Your task to perform on an android device: turn off location Image 0: 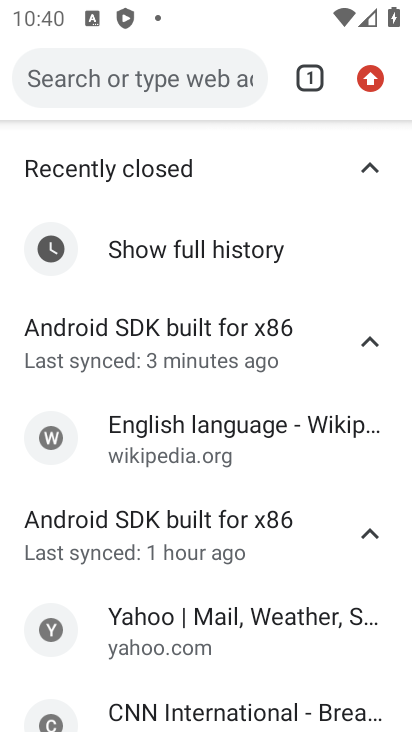
Step 0: press home button
Your task to perform on an android device: turn off location Image 1: 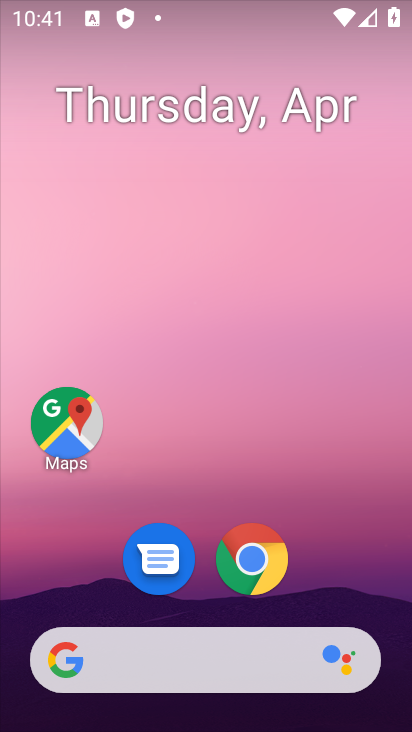
Step 1: drag from (223, 590) to (271, 40)
Your task to perform on an android device: turn off location Image 2: 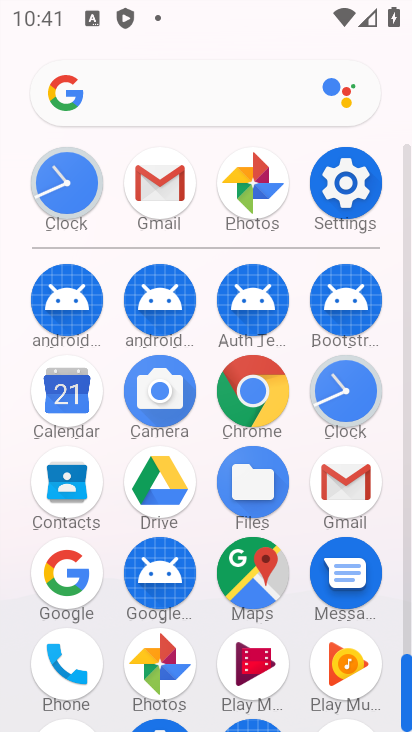
Step 2: click (355, 211)
Your task to perform on an android device: turn off location Image 3: 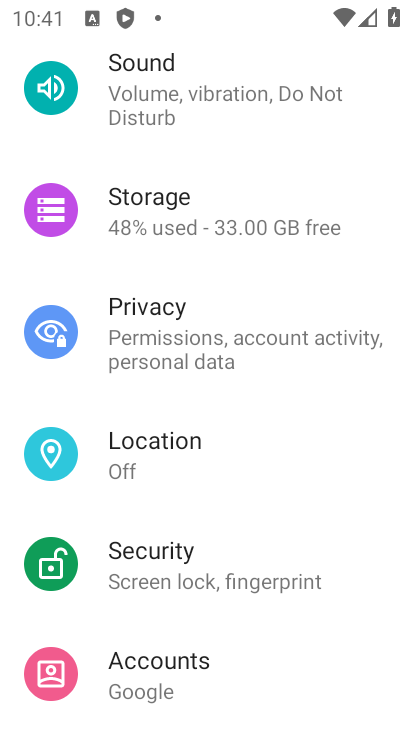
Step 3: click (221, 446)
Your task to perform on an android device: turn off location Image 4: 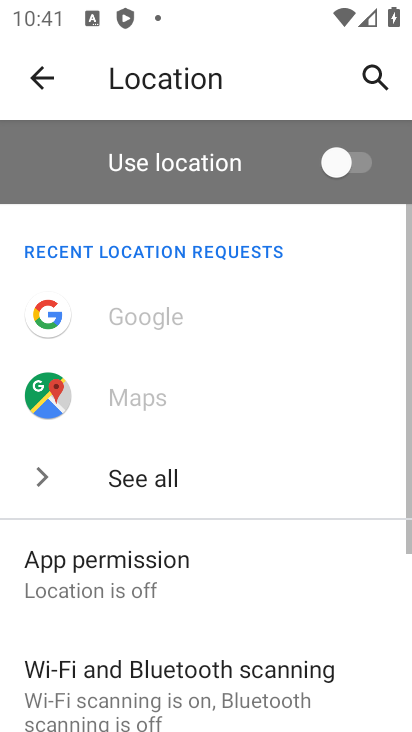
Step 4: task complete